Your task to perform on an android device: empty trash in the gmail app Image 0: 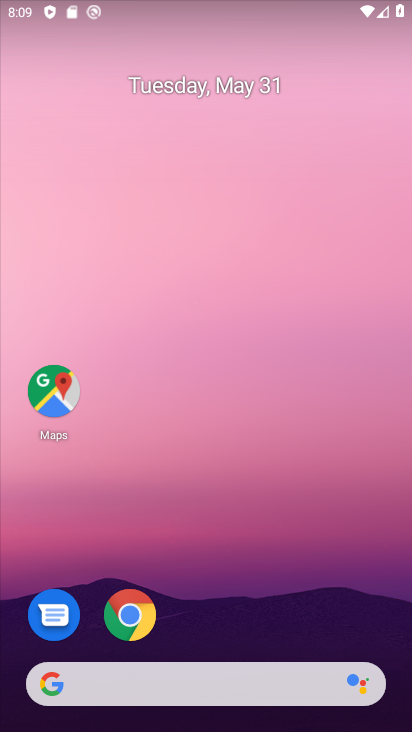
Step 0: drag from (400, 655) to (302, 73)
Your task to perform on an android device: empty trash in the gmail app Image 1: 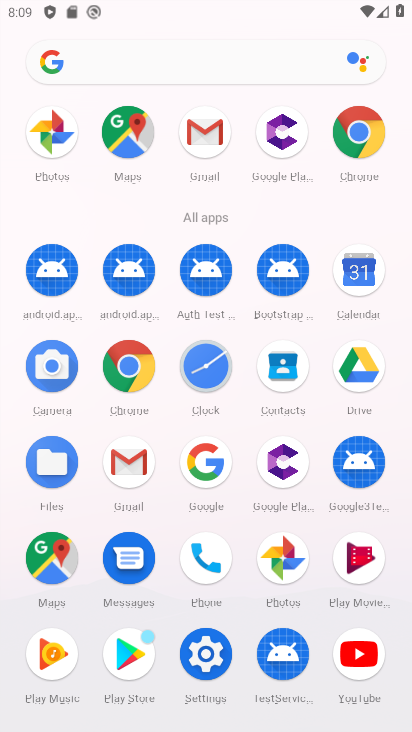
Step 1: click (129, 461)
Your task to perform on an android device: empty trash in the gmail app Image 2: 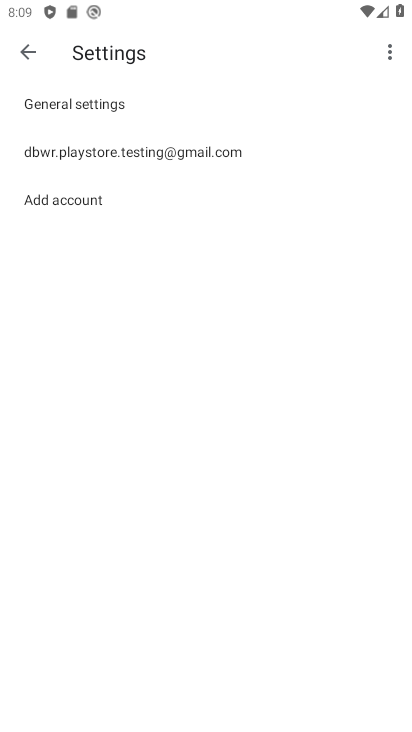
Step 2: press back button
Your task to perform on an android device: empty trash in the gmail app Image 3: 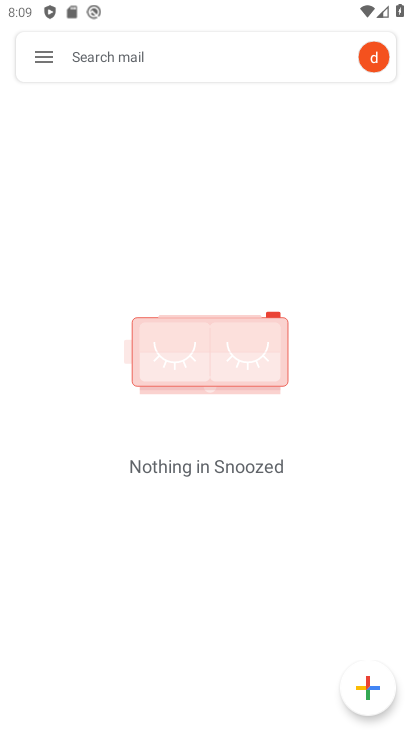
Step 3: click (47, 59)
Your task to perform on an android device: empty trash in the gmail app Image 4: 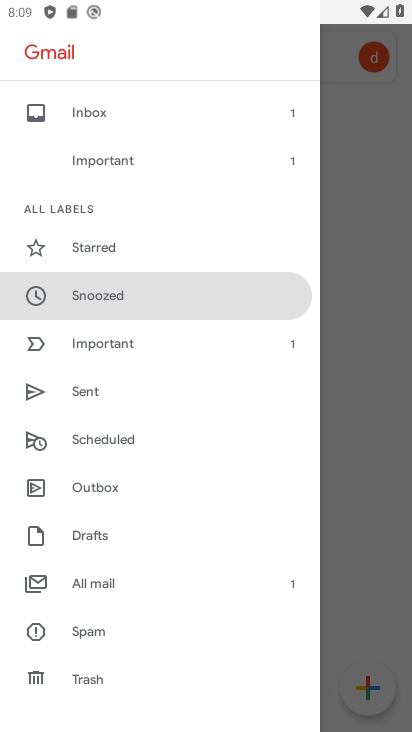
Step 4: click (99, 665)
Your task to perform on an android device: empty trash in the gmail app Image 5: 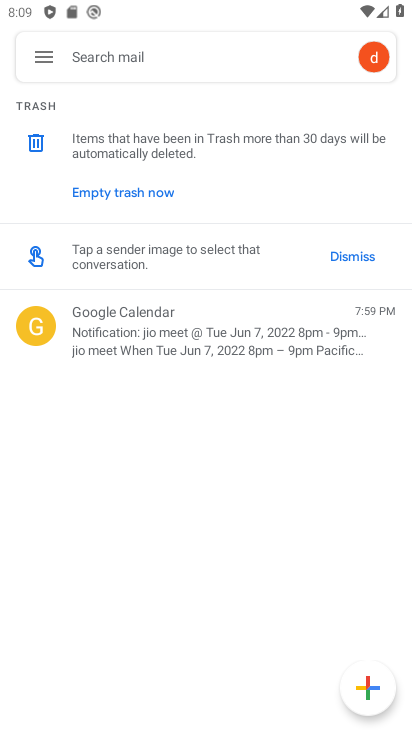
Step 5: click (124, 192)
Your task to perform on an android device: empty trash in the gmail app Image 6: 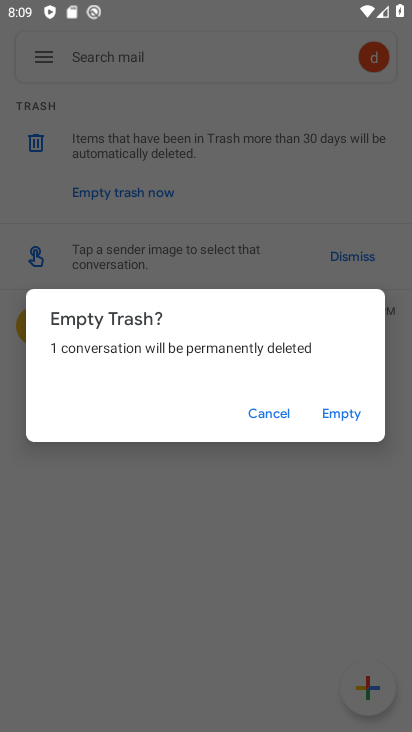
Step 6: click (343, 413)
Your task to perform on an android device: empty trash in the gmail app Image 7: 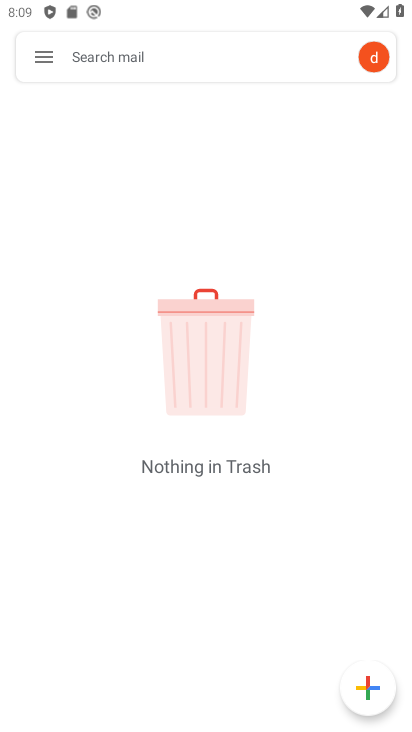
Step 7: task complete